Your task to perform on an android device: Open Wikipedia Image 0: 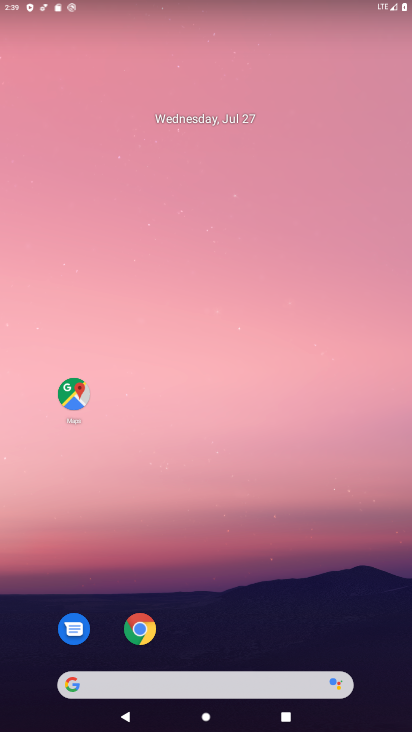
Step 0: click (138, 622)
Your task to perform on an android device: Open Wikipedia Image 1: 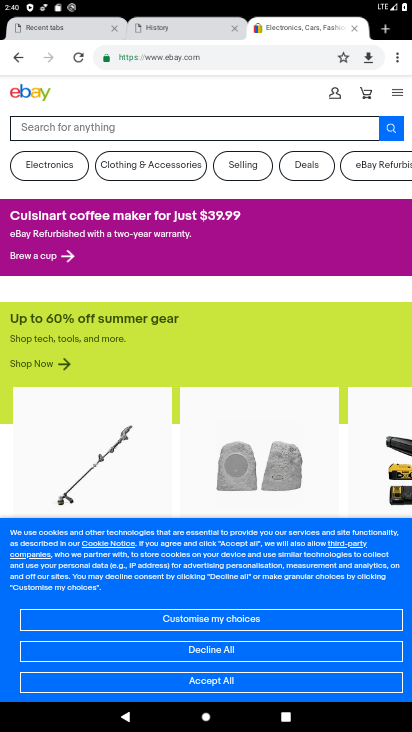
Step 1: click (383, 33)
Your task to perform on an android device: Open Wikipedia Image 2: 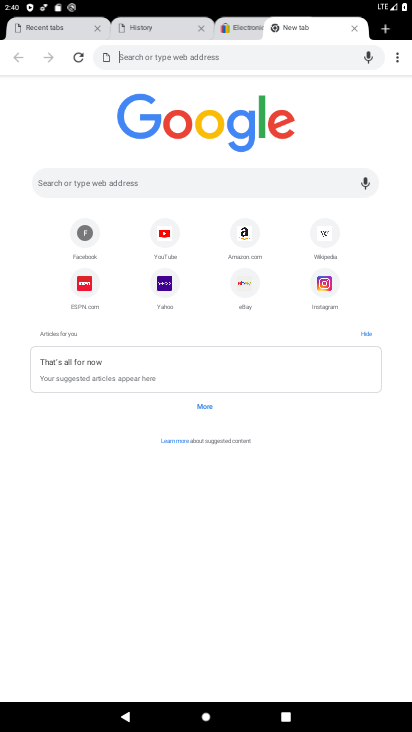
Step 2: click (321, 231)
Your task to perform on an android device: Open Wikipedia Image 3: 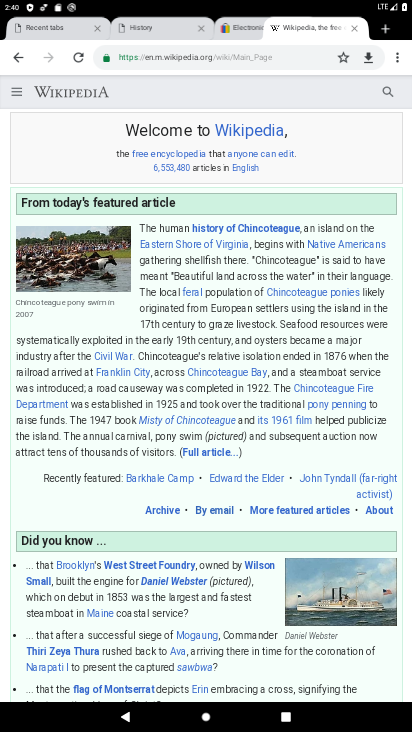
Step 3: task complete